Your task to perform on an android device: toggle data saver in the chrome app Image 0: 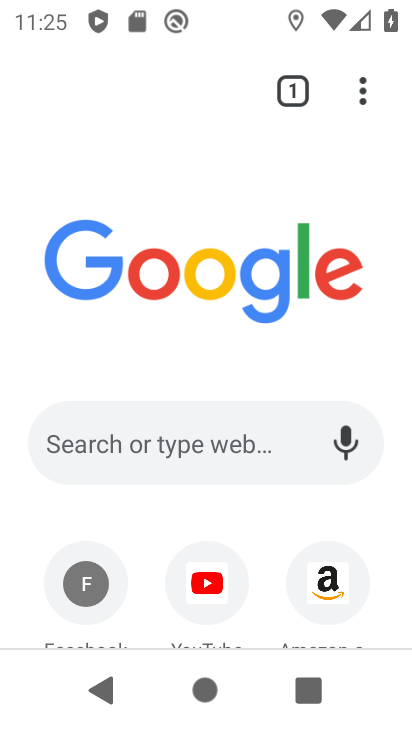
Step 0: click (367, 81)
Your task to perform on an android device: toggle data saver in the chrome app Image 1: 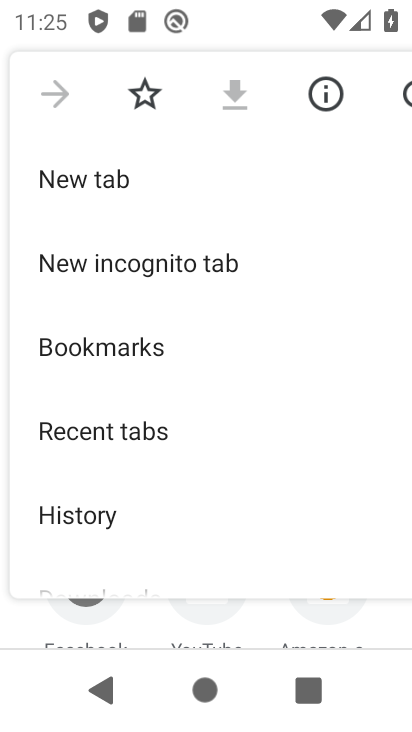
Step 1: drag from (198, 489) to (134, 144)
Your task to perform on an android device: toggle data saver in the chrome app Image 2: 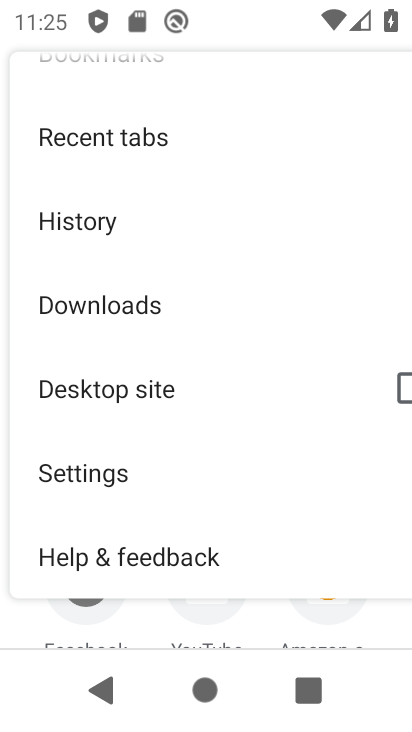
Step 2: click (90, 471)
Your task to perform on an android device: toggle data saver in the chrome app Image 3: 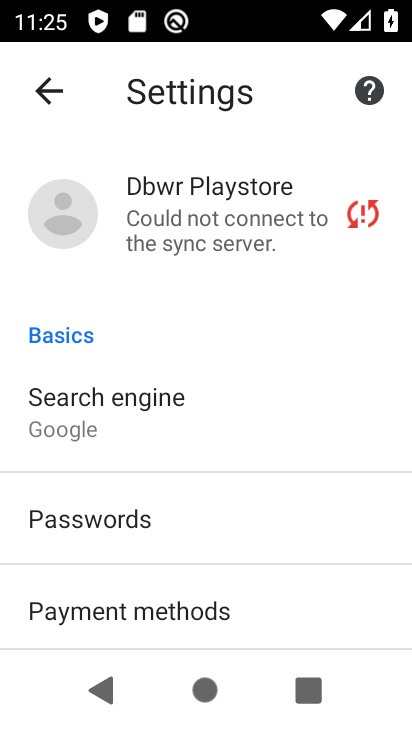
Step 3: drag from (230, 469) to (201, 80)
Your task to perform on an android device: toggle data saver in the chrome app Image 4: 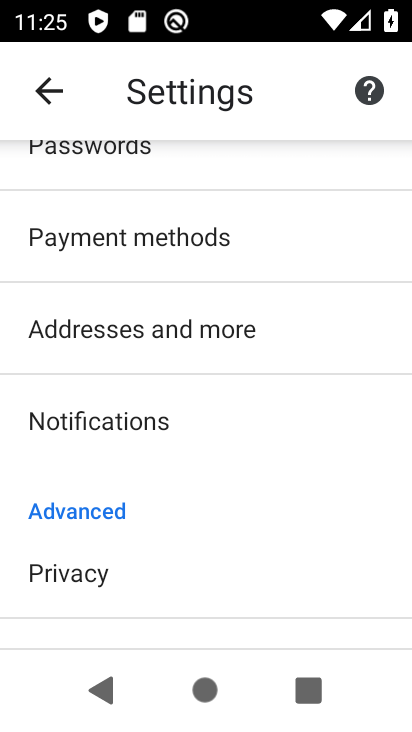
Step 4: drag from (224, 565) to (169, 294)
Your task to perform on an android device: toggle data saver in the chrome app Image 5: 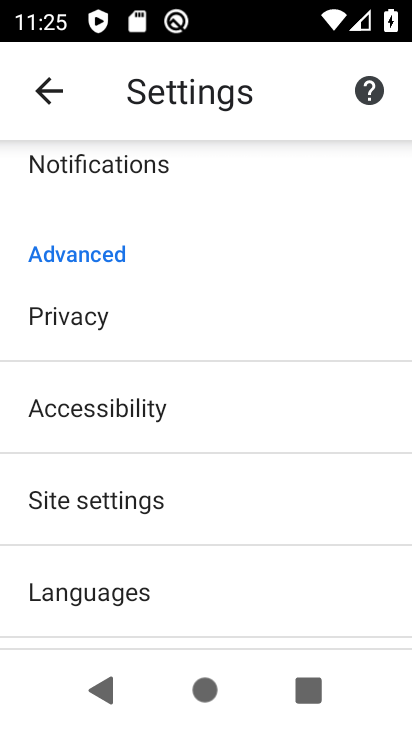
Step 5: drag from (179, 500) to (140, 270)
Your task to perform on an android device: toggle data saver in the chrome app Image 6: 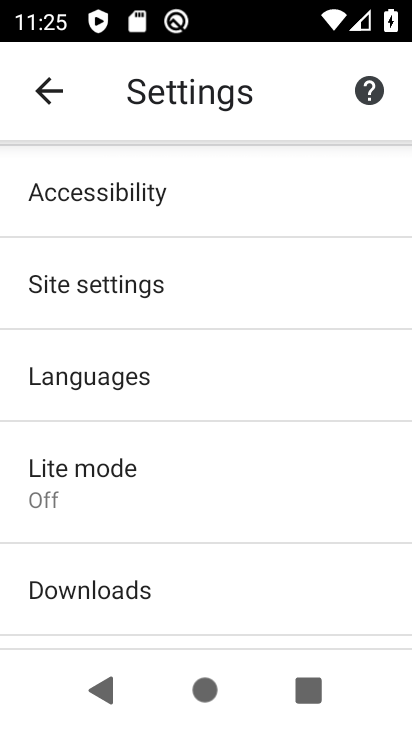
Step 6: click (92, 472)
Your task to perform on an android device: toggle data saver in the chrome app Image 7: 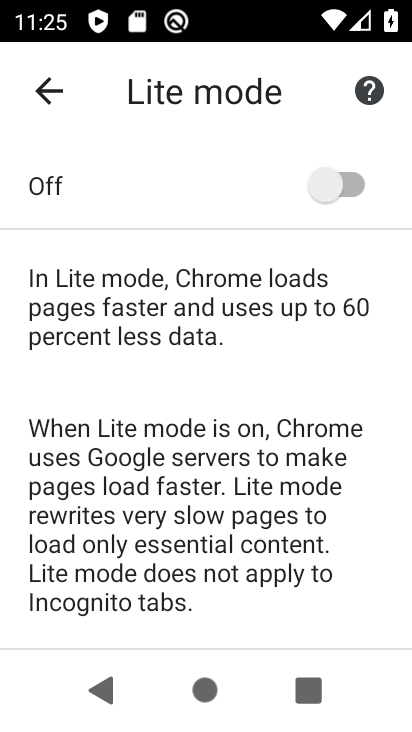
Step 7: click (327, 191)
Your task to perform on an android device: toggle data saver in the chrome app Image 8: 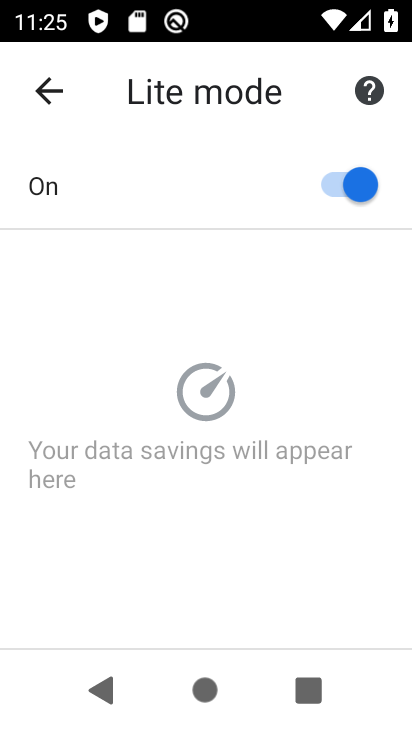
Step 8: task complete